Your task to perform on an android device: turn on improve location accuracy Image 0: 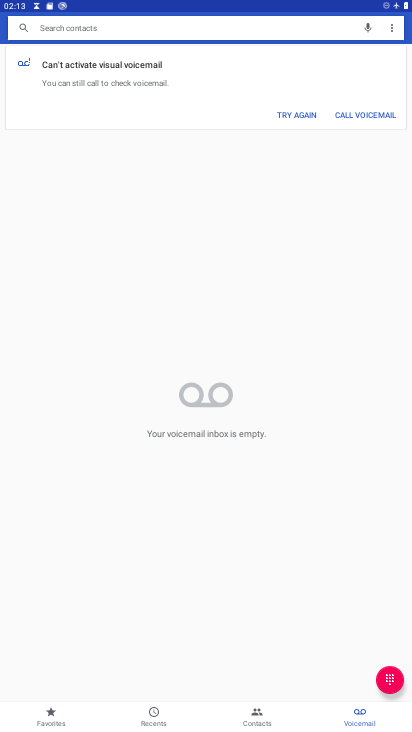
Step 0: press home button
Your task to perform on an android device: turn on improve location accuracy Image 1: 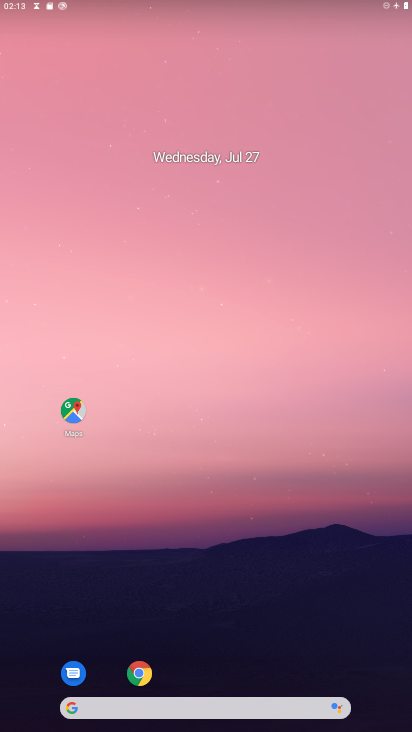
Step 1: drag from (246, 650) to (295, 214)
Your task to perform on an android device: turn on improve location accuracy Image 2: 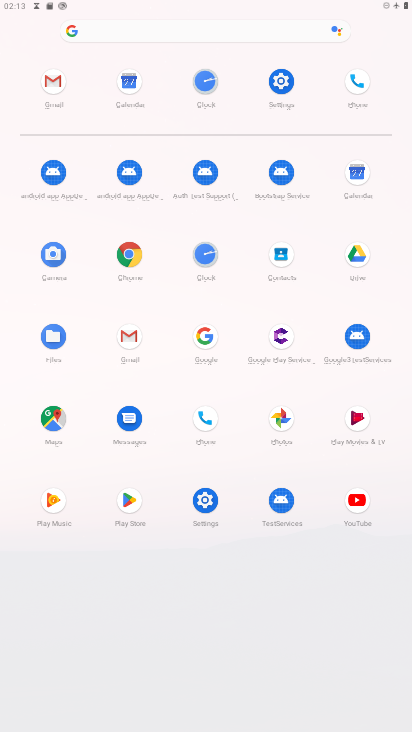
Step 2: click (277, 65)
Your task to perform on an android device: turn on improve location accuracy Image 3: 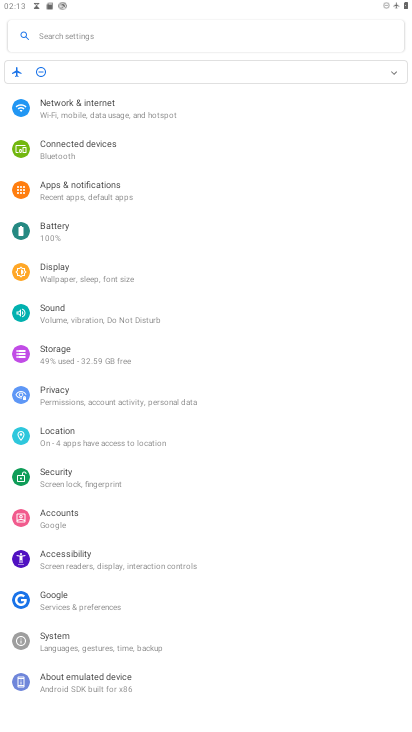
Step 3: click (108, 394)
Your task to perform on an android device: turn on improve location accuracy Image 4: 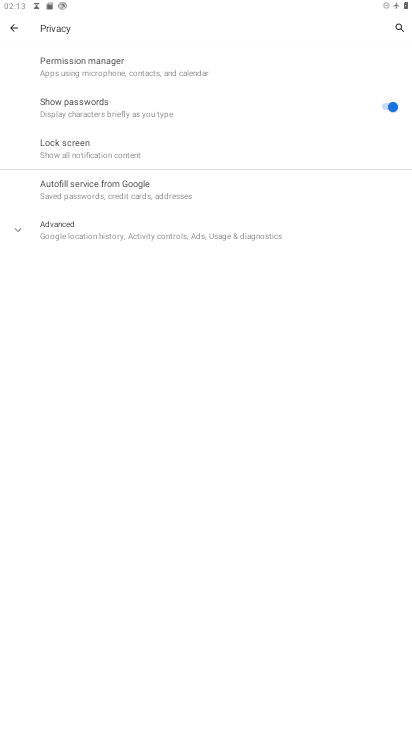
Step 4: click (111, 180)
Your task to perform on an android device: turn on improve location accuracy Image 5: 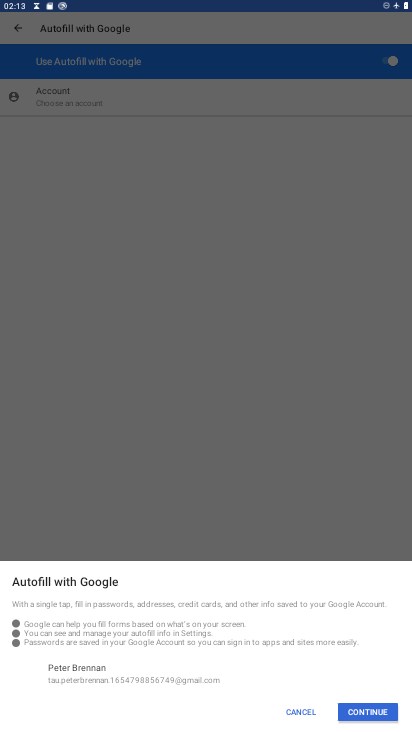
Step 5: press back button
Your task to perform on an android device: turn on improve location accuracy Image 6: 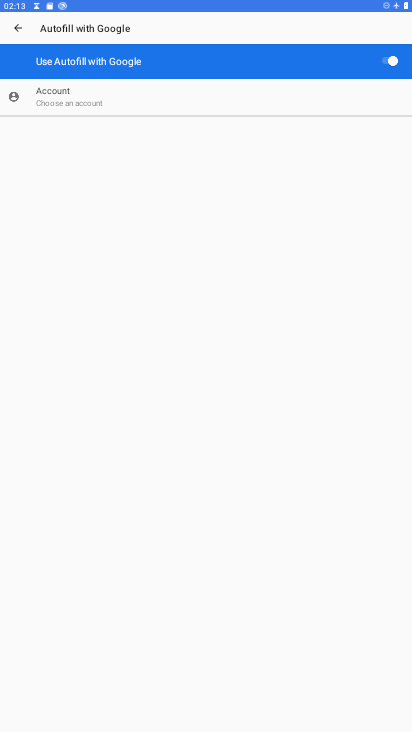
Step 6: click (16, 25)
Your task to perform on an android device: turn on improve location accuracy Image 7: 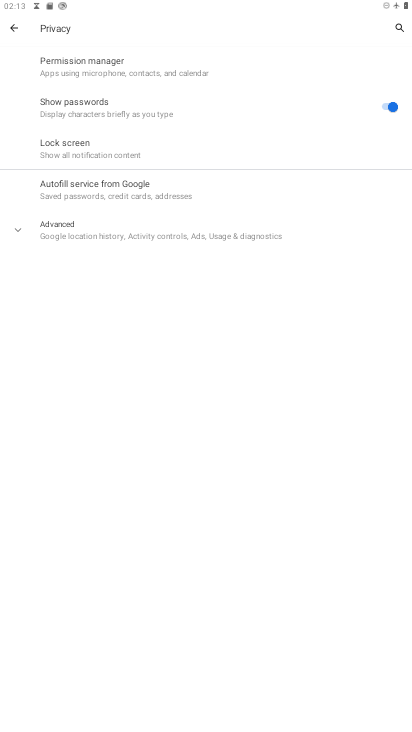
Step 7: click (0, 31)
Your task to perform on an android device: turn on improve location accuracy Image 8: 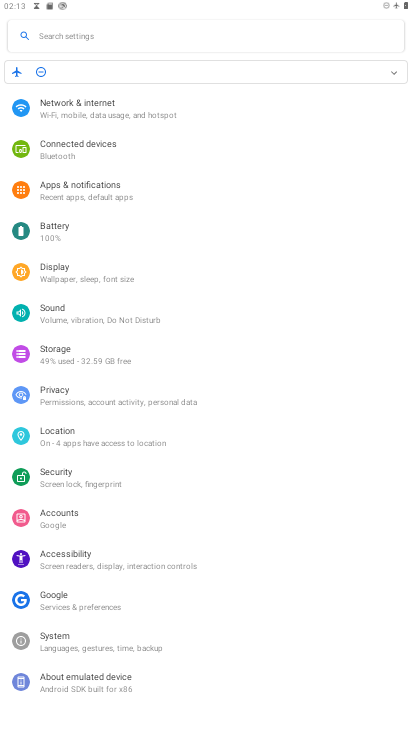
Step 8: click (84, 427)
Your task to perform on an android device: turn on improve location accuracy Image 9: 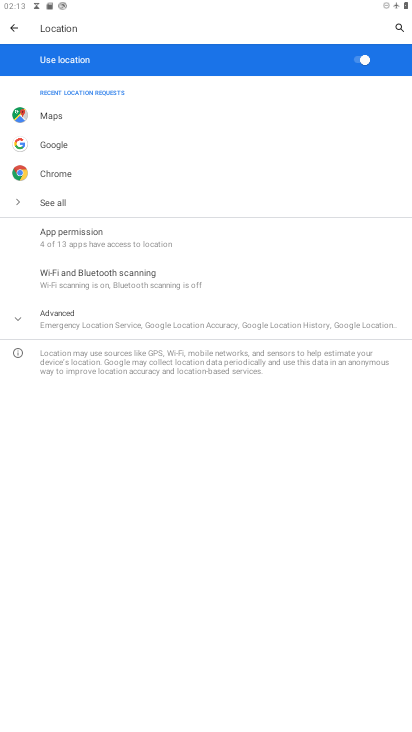
Step 9: click (84, 320)
Your task to perform on an android device: turn on improve location accuracy Image 10: 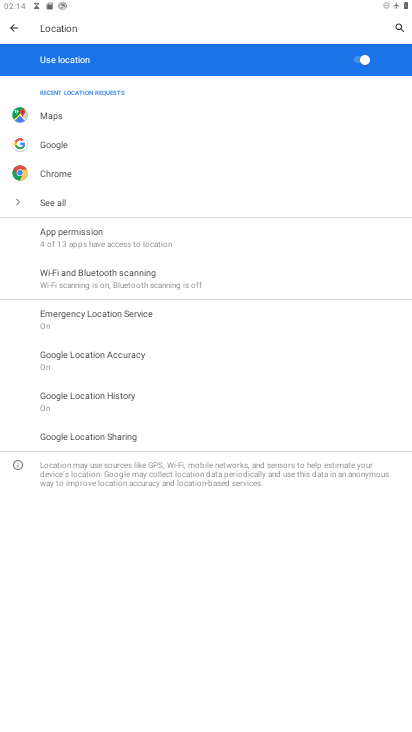
Step 10: click (102, 361)
Your task to perform on an android device: turn on improve location accuracy Image 11: 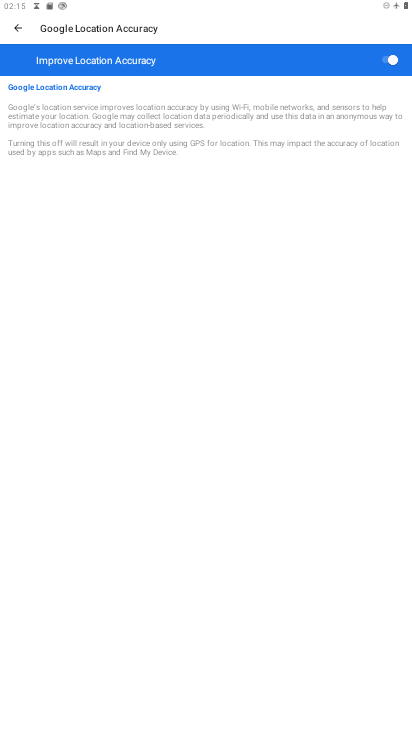
Step 11: task complete